Your task to perform on an android device: open app "The Home Depot" Image 0: 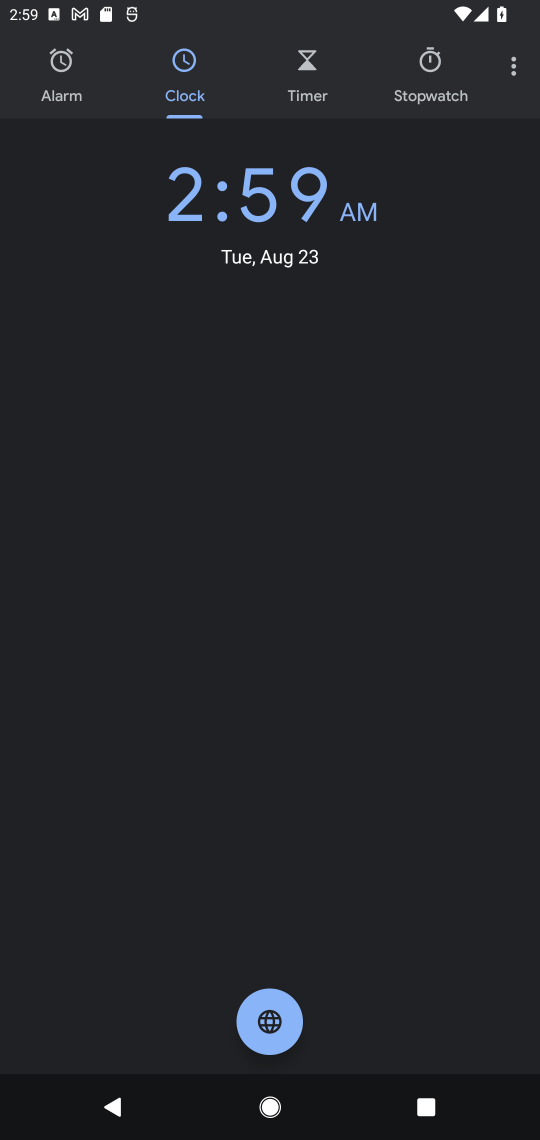
Step 0: press home button
Your task to perform on an android device: open app "The Home Depot" Image 1: 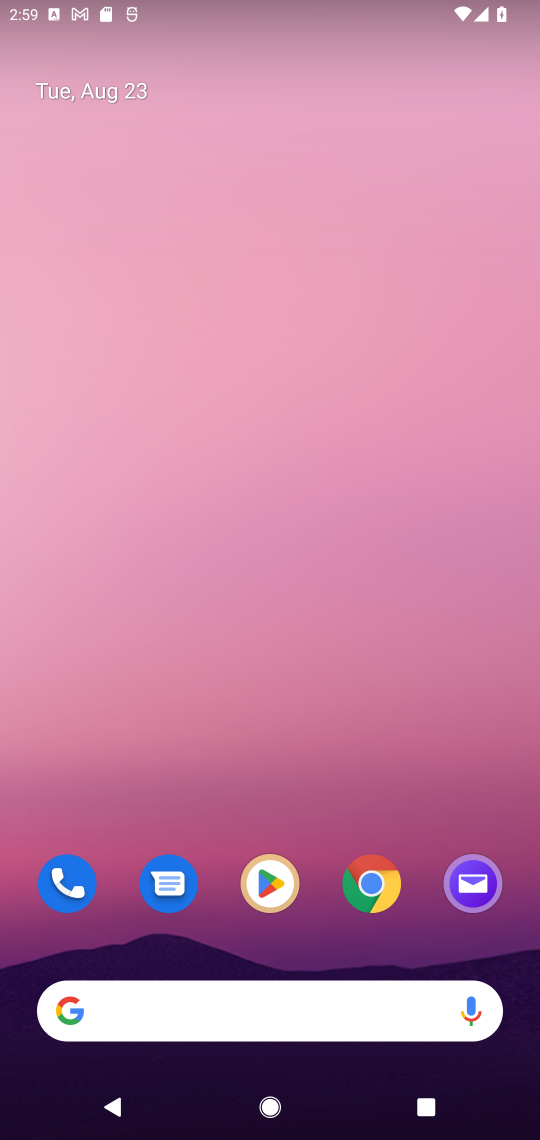
Step 1: drag from (174, 890) to (212, 278)
Your task to perform on an android device: open app "The Home Depot" Image 2: 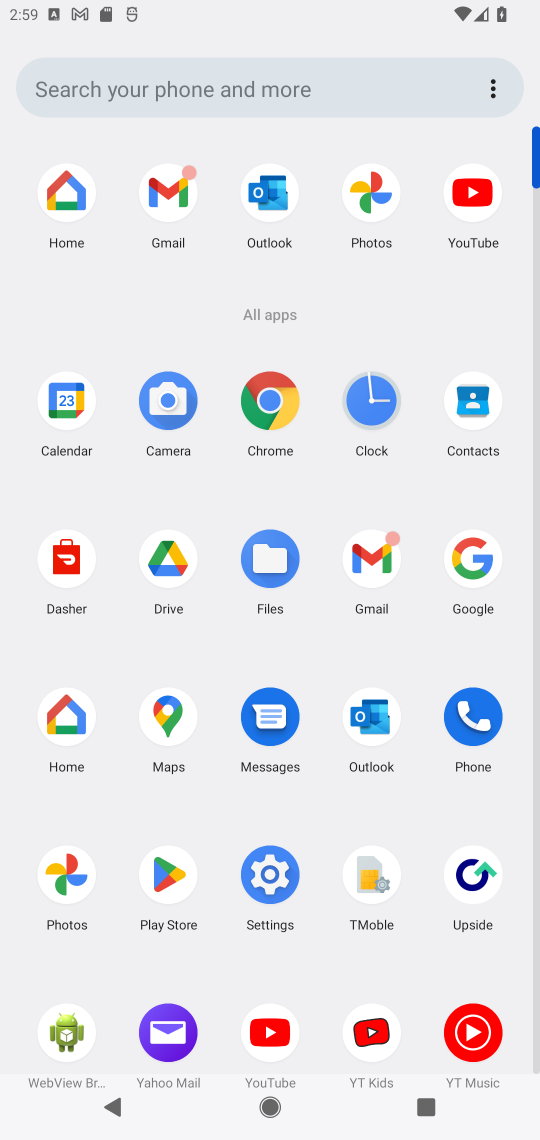
Step 2: click (166, 887)
Your task to perform on an android device: open app "The Home Depot" Image 3: 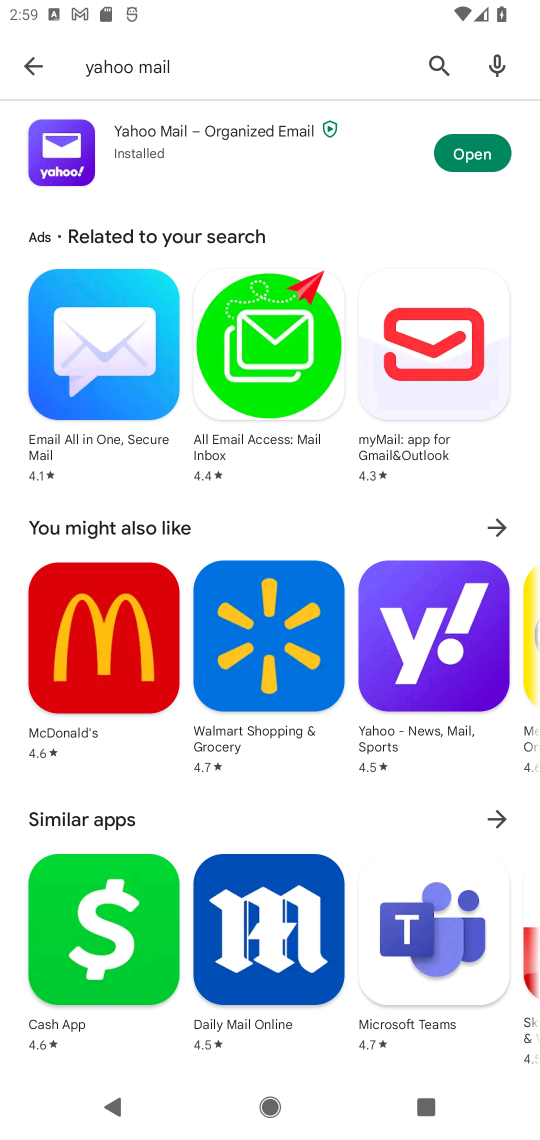
Step 3: click (433, 53)
Your task to perform on an android device: open app "The Home Depot" Image 4: 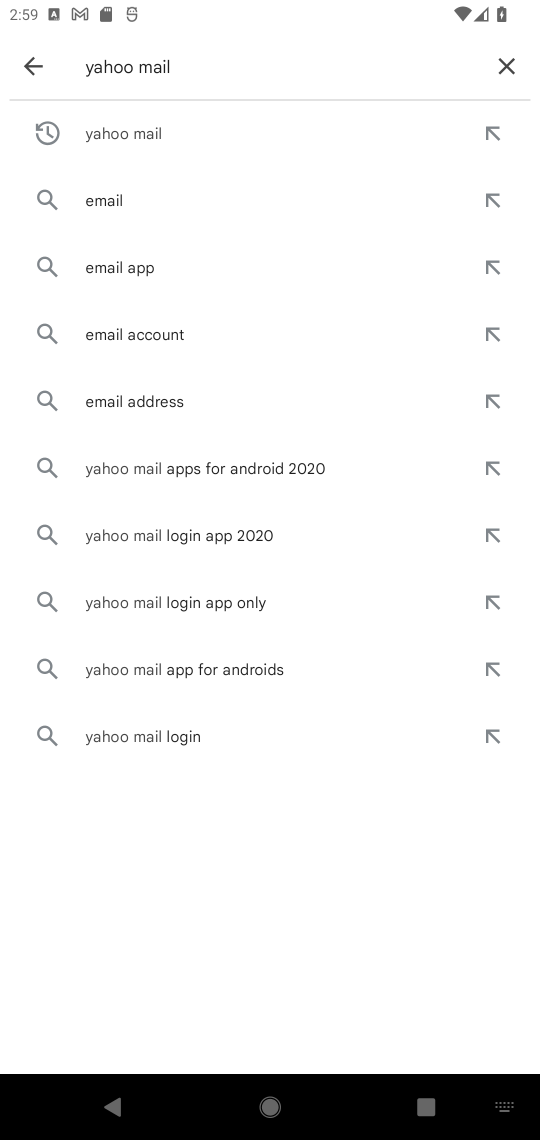
Step 4: click (509, 73)
Your task to perform on an android device: open app "The Home Depot" Image 5: 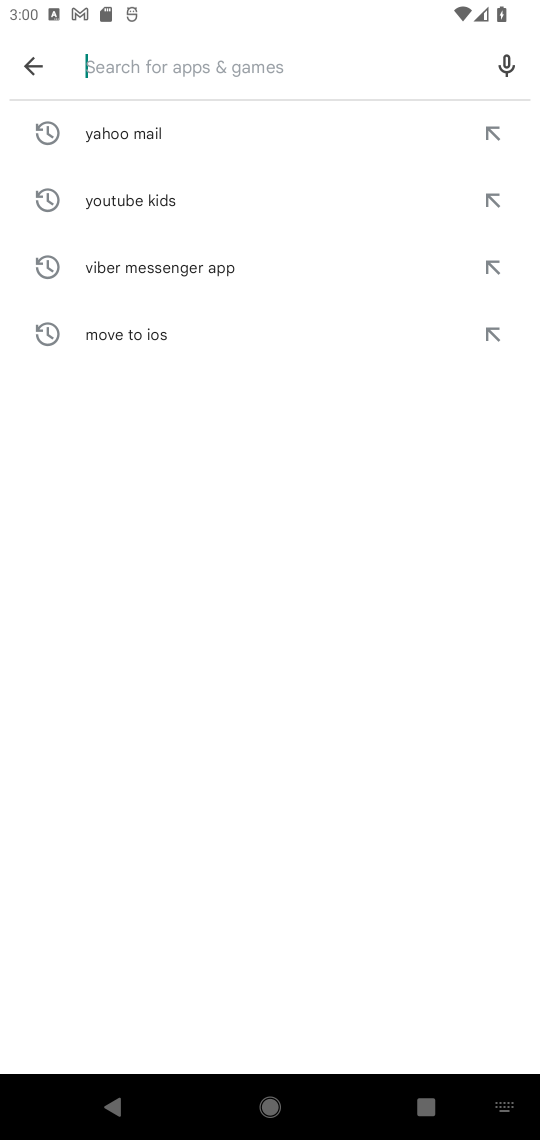
Step 5: type "The Home Depot"
Your task to perform on an android device: open app "The Home Depot" Image 6: 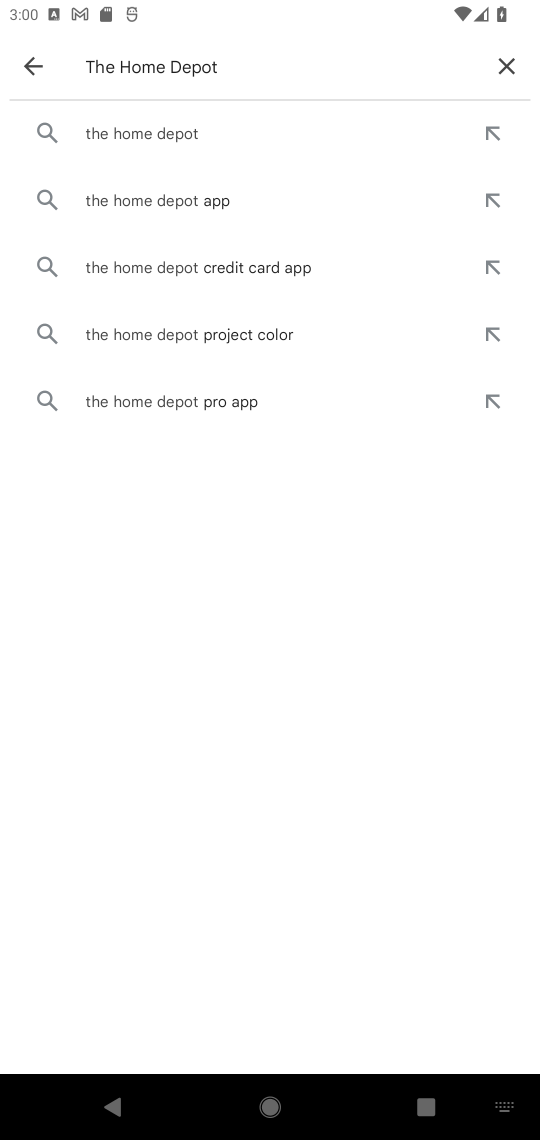
Step 6: click (122, 140)
Your task to perform on an android device: open app "The Home Depot" Image 7: 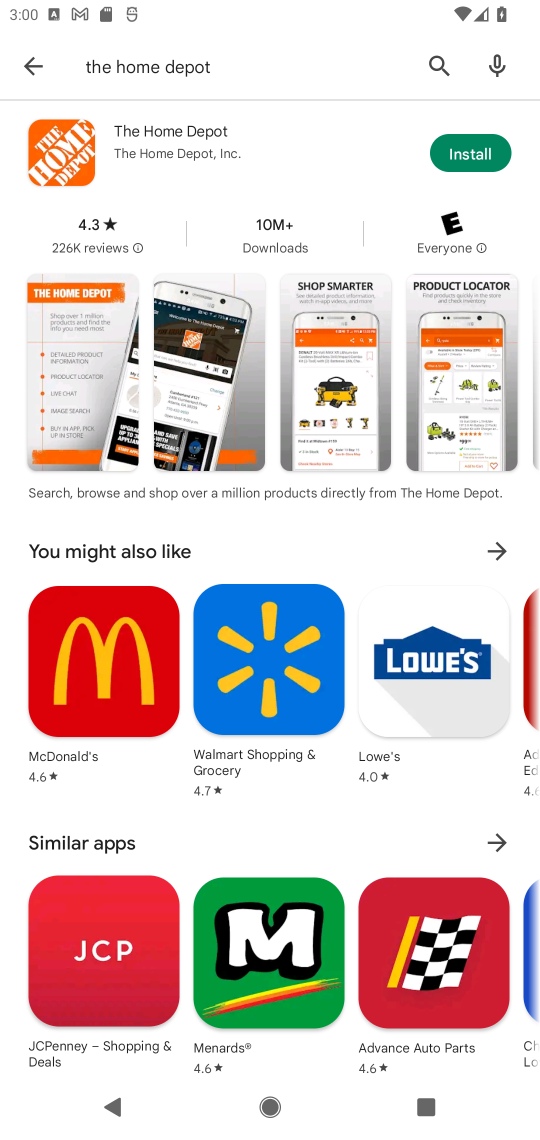
Step 7: click (455, 159)
Your task to perform on an android device: open app "The Home Depot" Image 8: 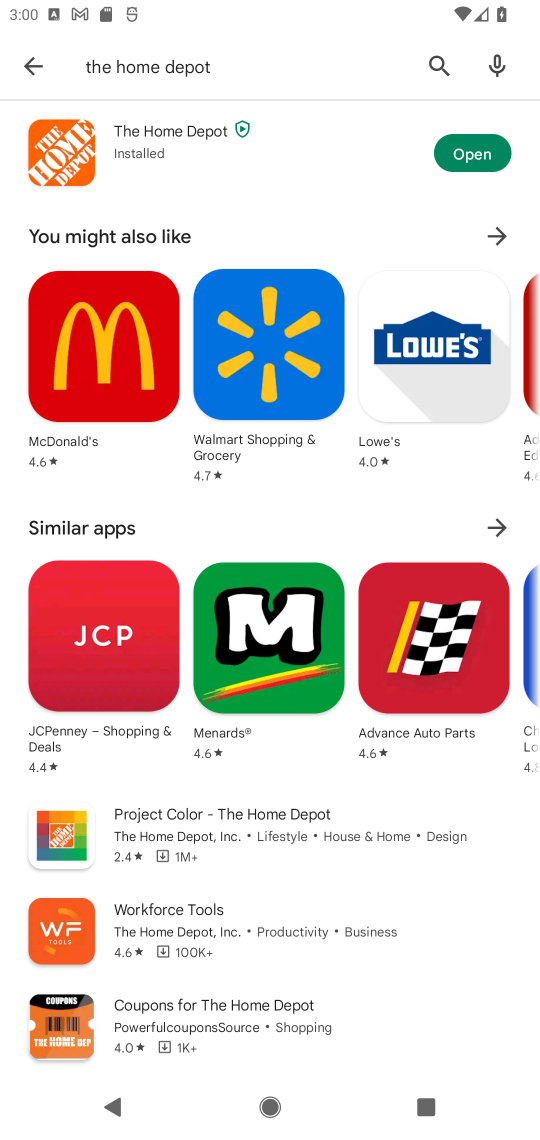
Step 8: click (463, 158)
Your task to perform on an android device: open app "The Home Depot" Image 9: 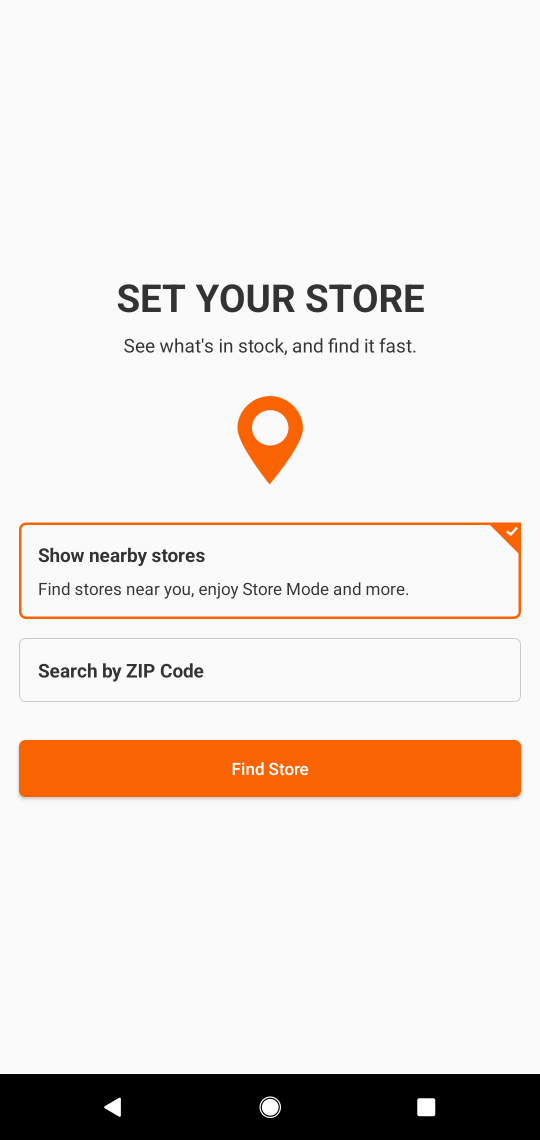
Step 9: task complete